Your task to perform on an android device: find snoozed emails in the gmail app Image 0: 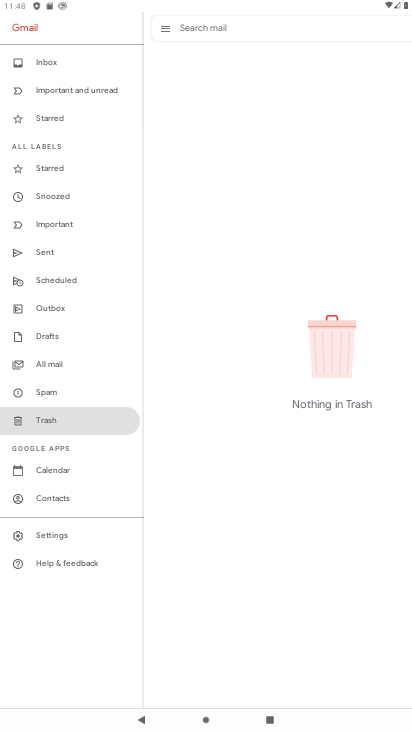
Step 0: click (77, 200)
Your task to perform on an android device: find snoozed emails in the gmail app Image 1: 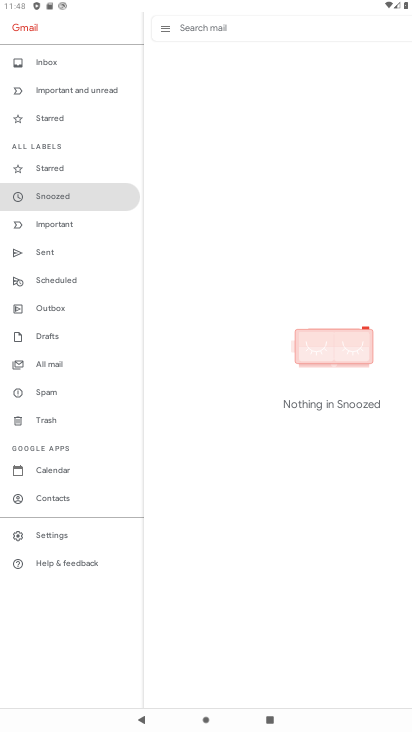
Step 1: task complete